Your task to perform on an android device: Go to display settings Image 0: 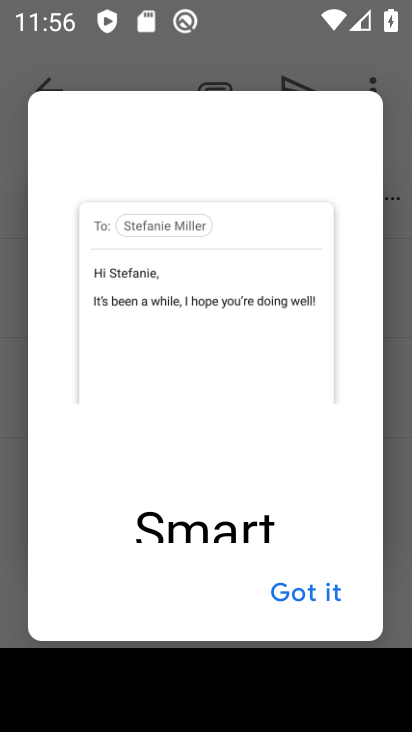
Step 0: press home button
Your task to perform on an android device: Go to display settings Image 1: 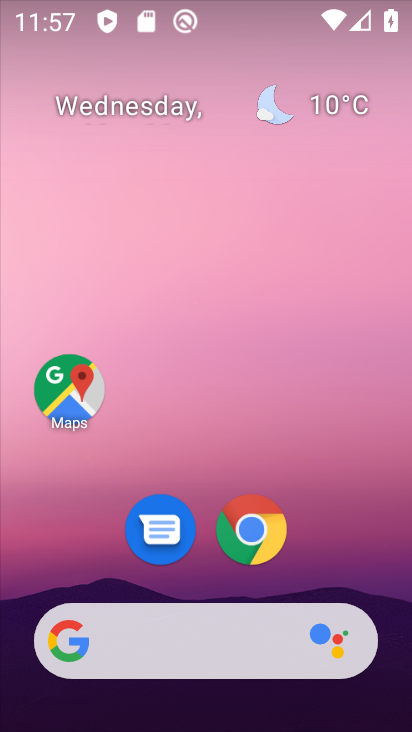
Step 1: drag from (319, 560) to (334, 96)
Your task to perform on an android device: Go to display settings Image 2: 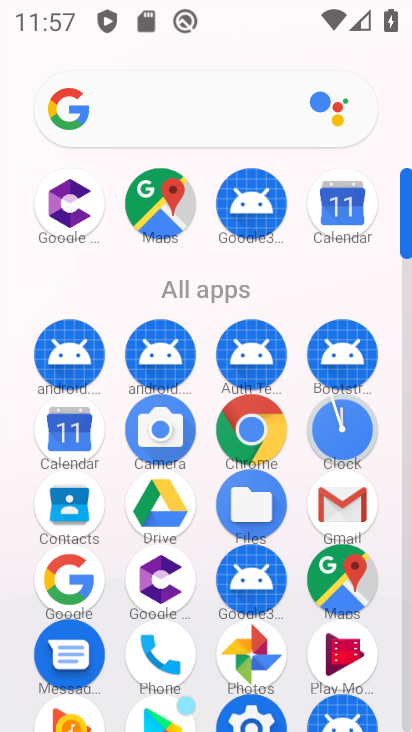
Step 2: drag from (288, 653) to (318, 321)
Your task to perform on an android device: Go to display settings Image 3: 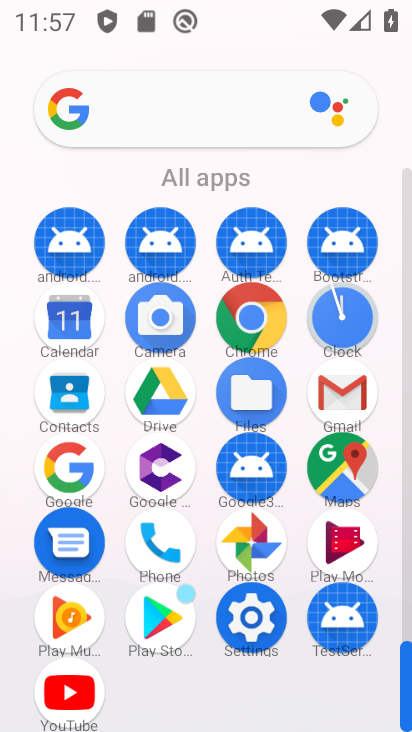
Step 3: click (249, 612)
Your task to perform on an android device: Go to display settings Image 4: 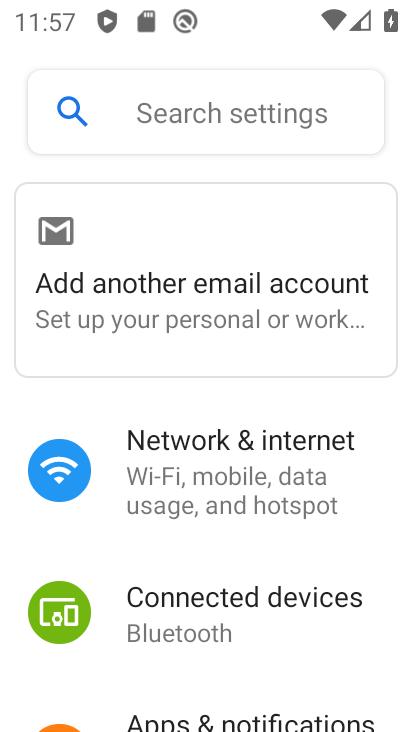
Step 4: drag from (227, 647) to (269, 393)
Your task to perform on an android device: Go to display settings Image 5: 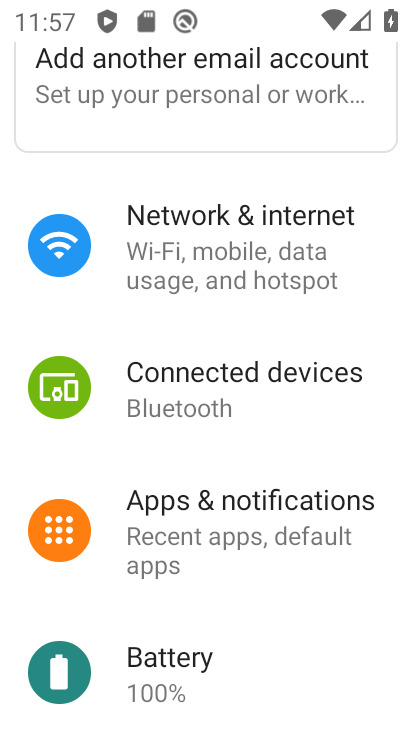
Step 5: drag from (241, 664) to (287, 481)
Your task to perform on an android device: Go to display settings Image 6: 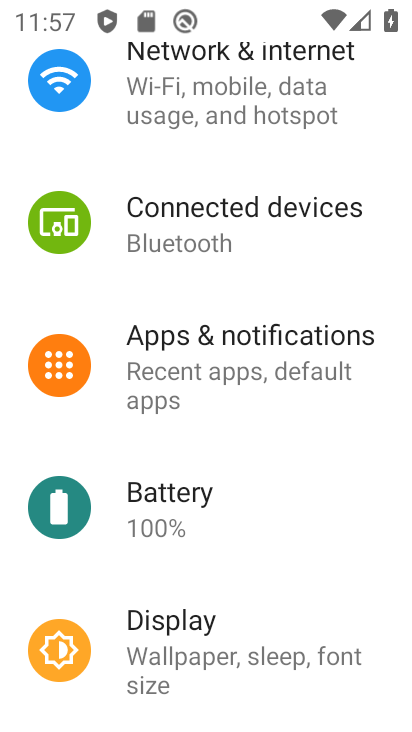
Step 6: click (257, 642)
Your task to perform on an android device: Go to display settings Image 7: 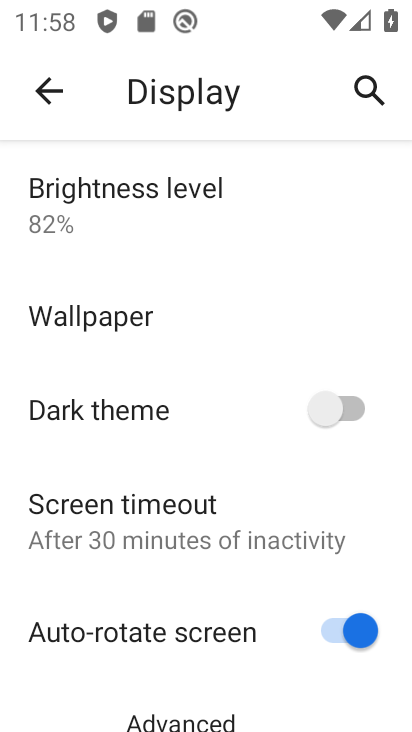
Step 7: task complete